Your task to perform on an android device: Show me productivity apps on the Play Store Image 0: 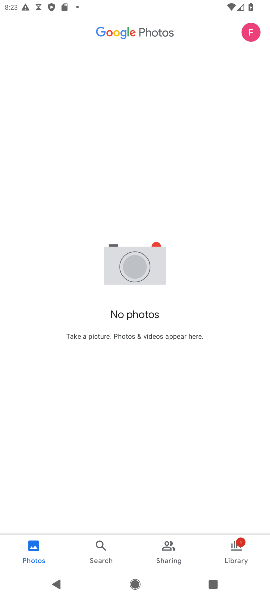
Step 0: press back button
Your task to perform on an android device: Show me productivity apps on the Play Store Image 1: 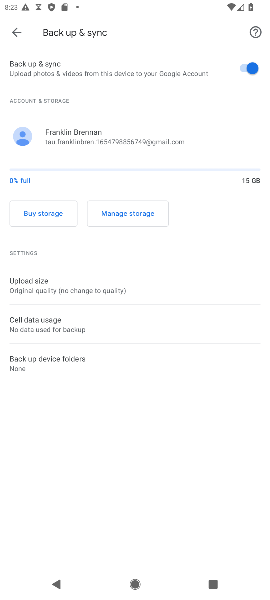
Step 1: press home button
Your task to perform on an android device: Show me productivity apps on the Play Store Image 2: 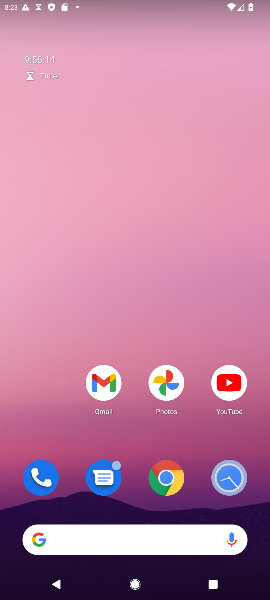
Step 2: drag from (261, 452) to (253, 198)
Your task to perform on an android device: Show me productivity apps on the Play Store Image 3: 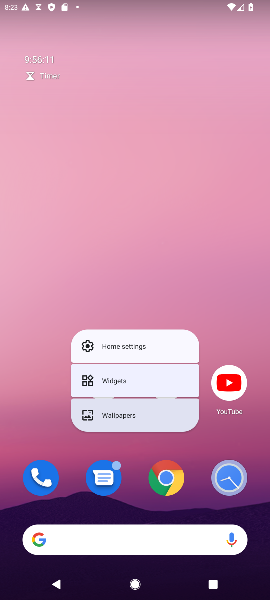
Step 3: click (220, 297)
Your task to perform on an android device: Show me productivity apps on the Play Store Image 4: 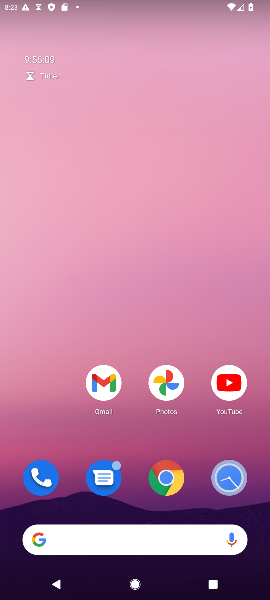
Step 4: drag from (69, 493) to (44, 126)
Your task to perform on an android device: Show me productivity apps on the Play Store Image 5: 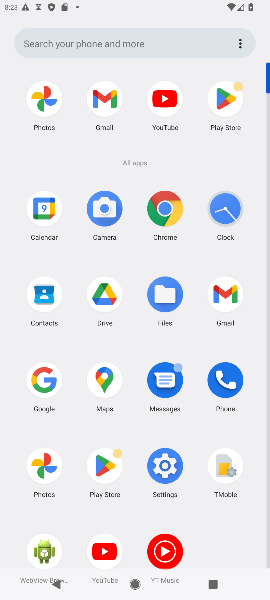
Step 5: click (237, 96)
Your task to perform on an android device: Show me productivity apps on the Play Store Image 6: 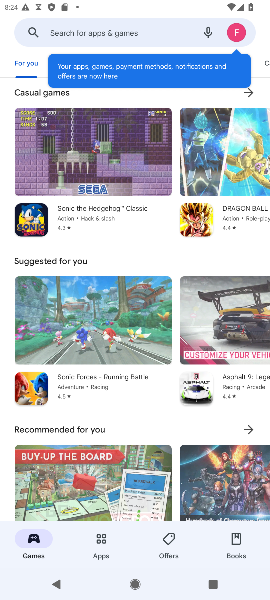
Step 6: click (103, 555)
Your task to perform on an android device: Show me productivity apps on the Play Store Image 7: 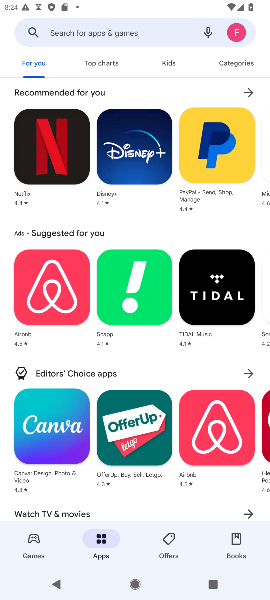
Step 7: click (244, 72)
Your task to perform on an android device: Show me productivity apps on the Play Store Image 8: 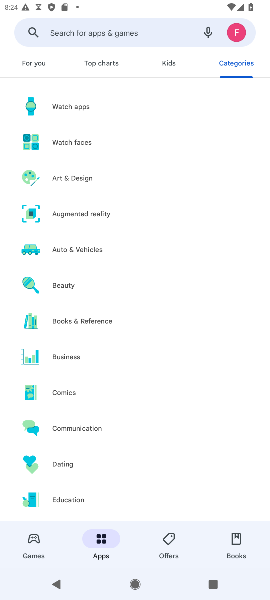
Step 8: drag from (99, 479) to (91, 62)
Your task to perform on an android device: Show me productivity apps on the Play Store Image 9: 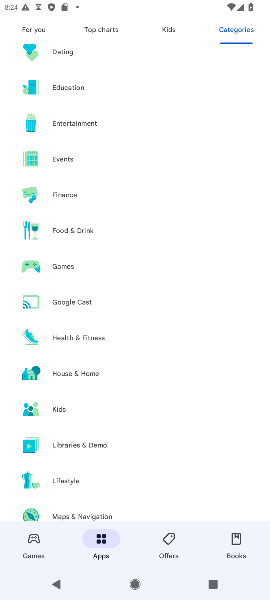
Step 9: drag from (101, 499) to (87, 153)
Your task to perform on an android device: Show me productivity apps on the Play Store Image 10: 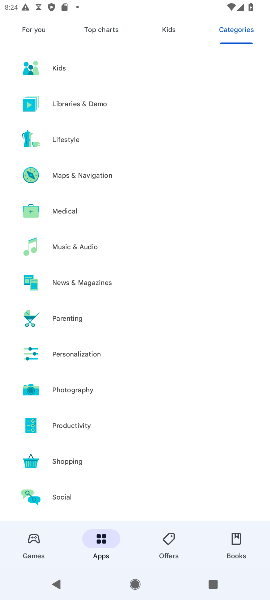
Step 10: click (89, 426)
Your task to perform on an android device: Show me productivity apps on the Play Store Image 11: 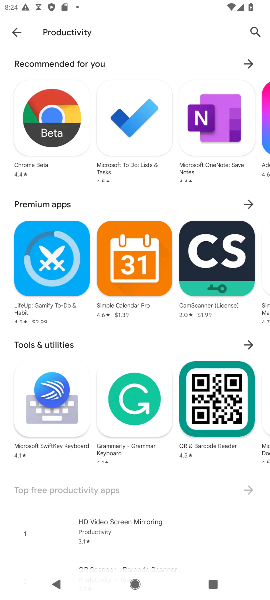
Step 11: task complete